Your task to perform on an android device: turn on sleep mode Image 0: 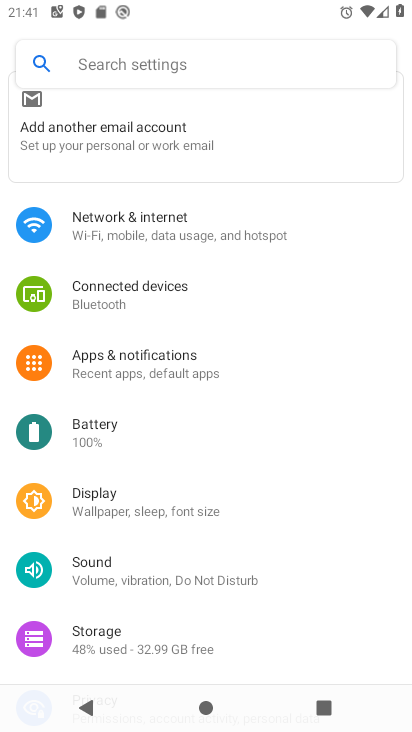
Step 0: task impossible